Your task to perform on an android device: turn notification dots on Image 0: 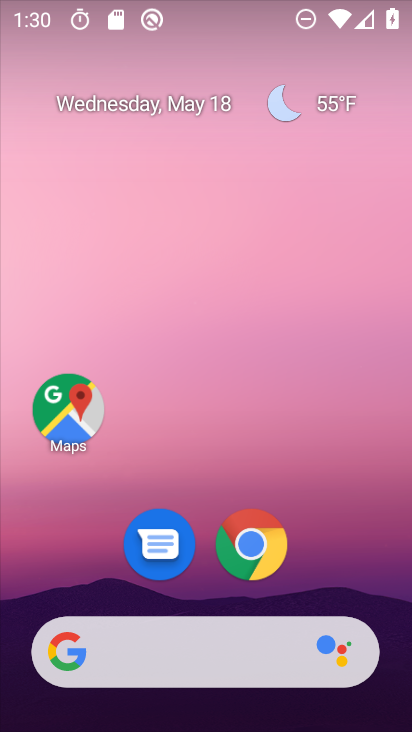
Step 0: drag from (335, 548) to (273, 207)
Your task to perform on an android device: turn notification dots on Image 1: 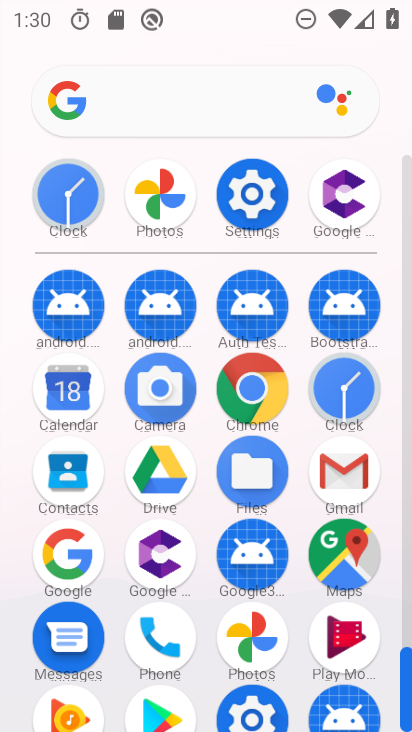
Step 1: click (259, 193)
Your task to perform on an android device: turn notification dots on Image 2: 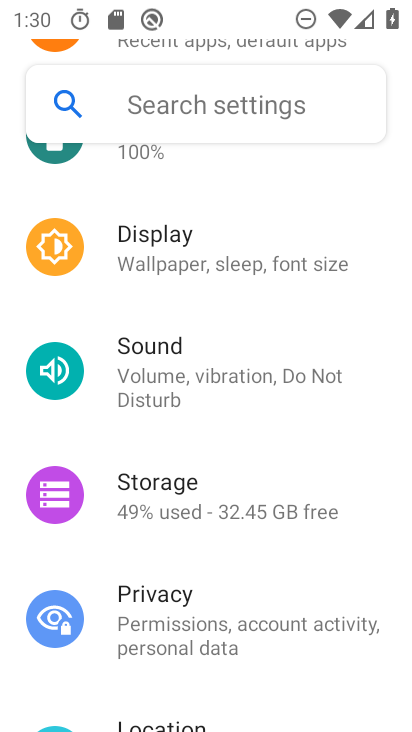
Step 2: drag from (261, 221) to (266, 377)
Your task to perform on an android device: turn notification dots on Image 3: 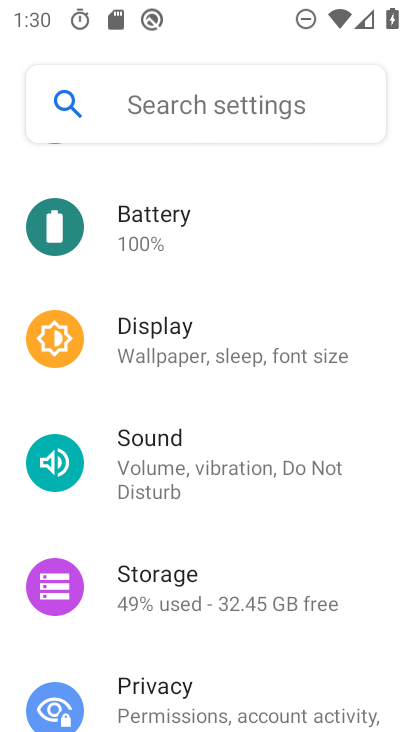
Step 3: drag from (303, 215) to (315, 513)
Your task to perform on an android device: turn notification dots on Image 4: 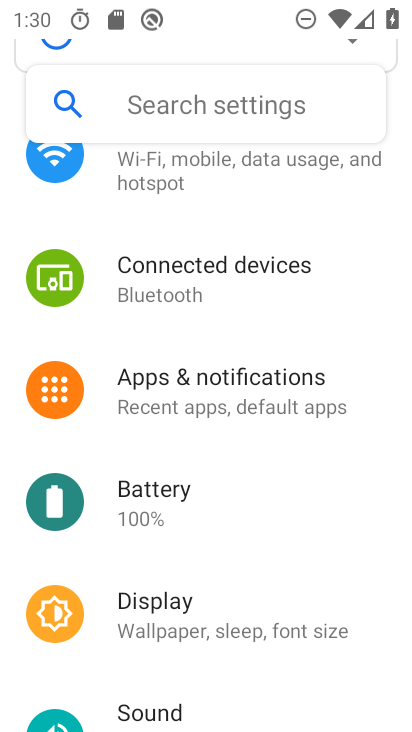
Step 4: click (270, 386)
Your task to perform on an android device: turn notification dots on Image 5: 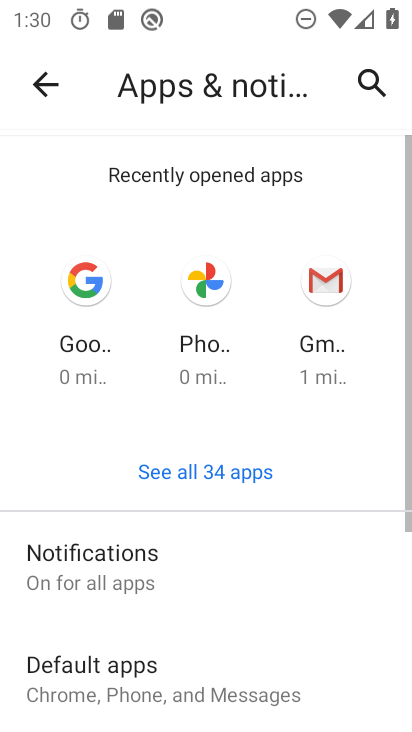
Step 5: drag from (270, 607) to (259, 258)
Your task to perform on an android device: turn notification dots on Image 6: 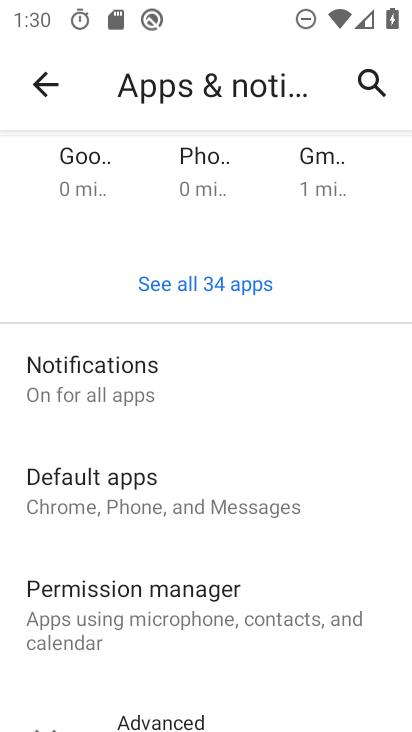
Step 6: click (220, 366)
Your task to perform on an android device: turn notification dots on Image 7: 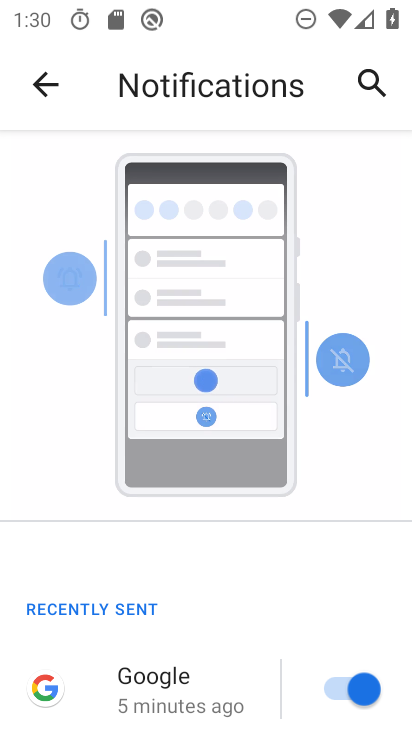
Step 7: drag from (257, 653) to (255, 295)
Your task to perform on an android device: turn notification dots on Image 8: 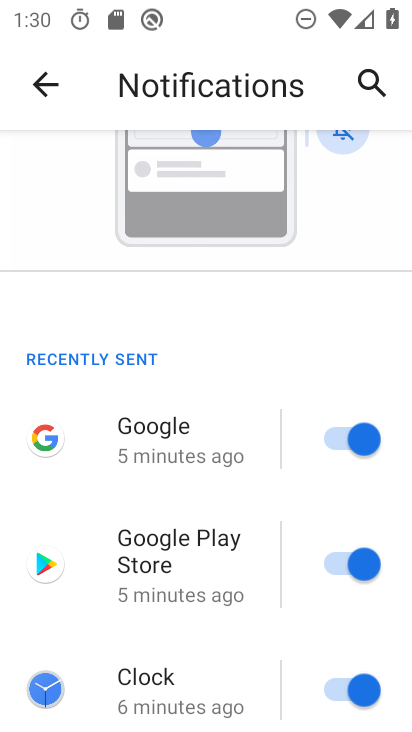
Step 8: drag from (258, 641) to (287, 276)
Your task to perform on an android device: turn notification dots on Image 9: 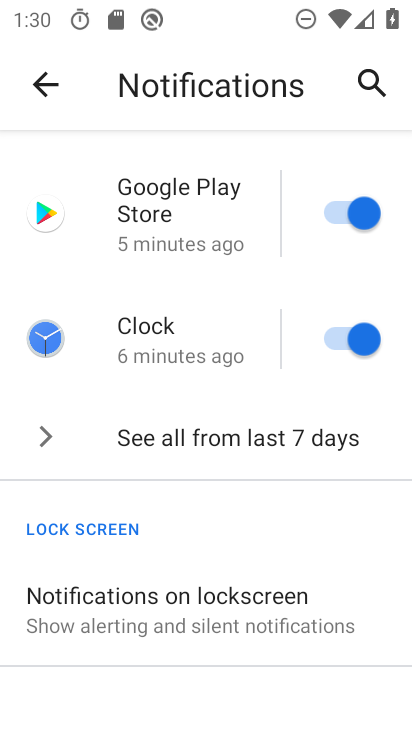
Step 9: drag from (264, 558) to (251, 165)
Your task to perform on an android device: turn notification dots on Image 10: 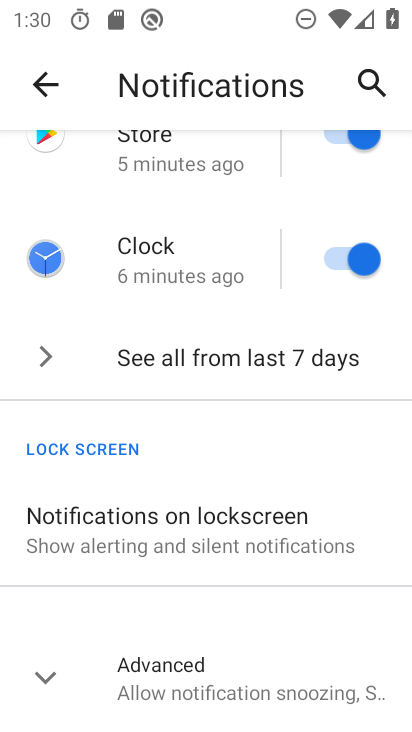
Step 10: click (247, 675)
Your task to perform on an android device: turn notification dots on Image 11: 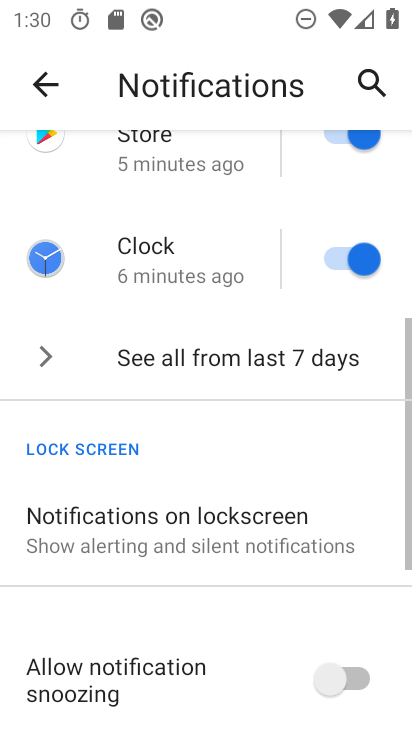
Step 11: task complete